Your task to perform on an android device: set the timer Image 0: 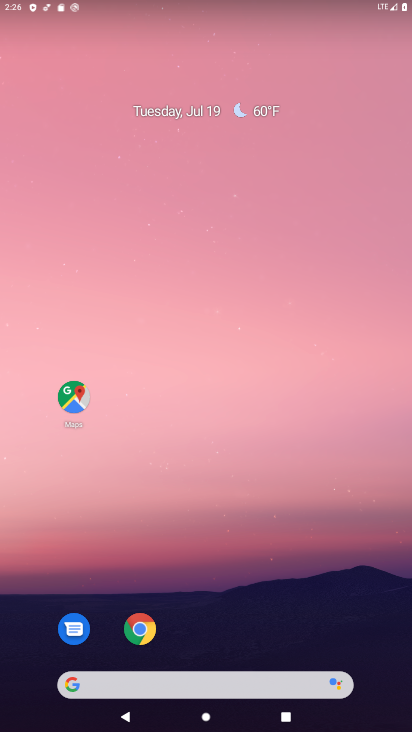
Step 0: drag from (205, 621) to (216, 181)
Your task to perform on an android device: set the timer Image 1: 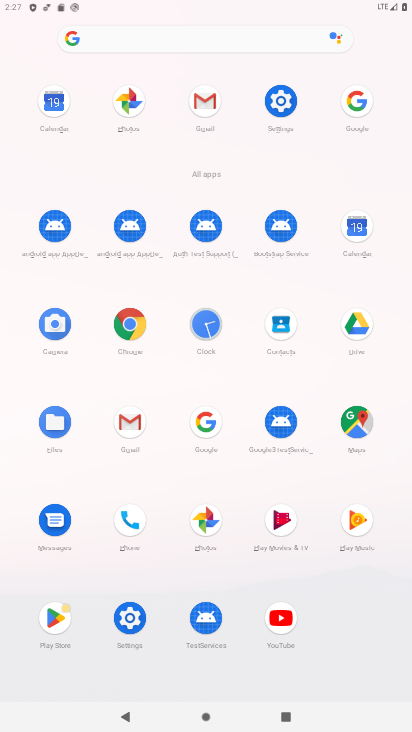
Step 1: click (203, 345)
Your task to perform on an android device: set the timer Image 2: 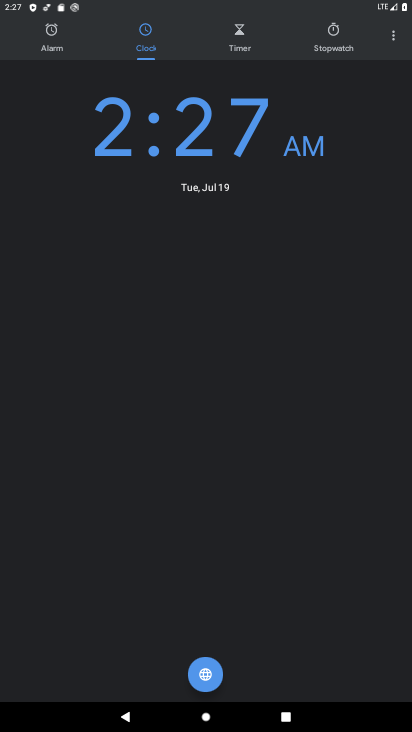
Step 2: click (247, 41)
Your task to perform on an android device: set the timer Image 3: 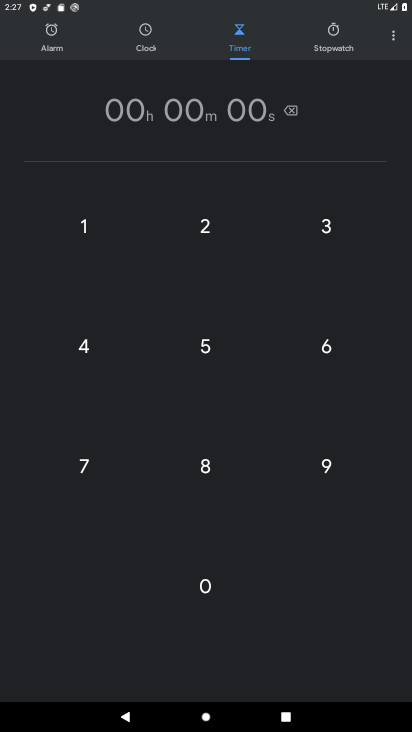
Step 3: type "11"
Your task to perform on an android device: set the timer Image 4: 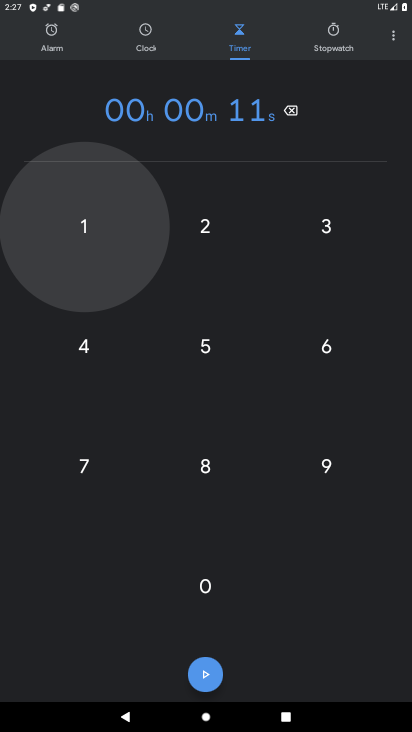
Step 4: click (198, 662)
Your task to perform on an android device: set the timer Image 5: 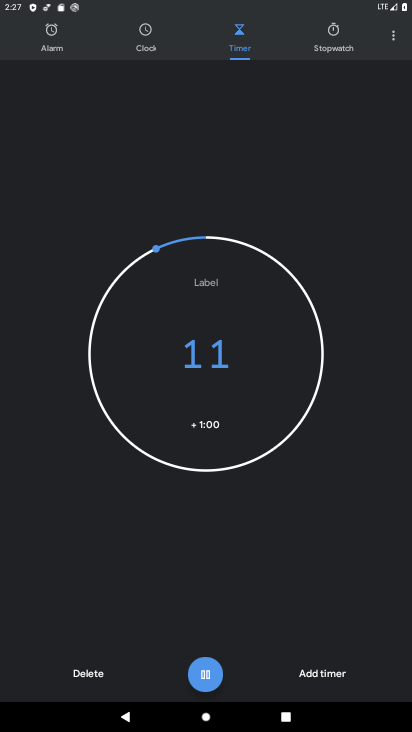
Step 5: task complete